Your task to perform on an android device: Set the phone to "Do not disturb". Image 0: 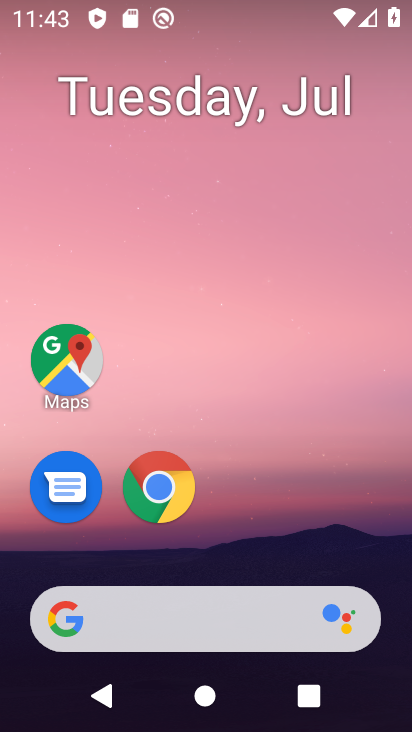
Step 0: drag from (378, 574) to (291, 204)
Your task to perform on an android device: Set the phone to "Do not disturb". Image 1: 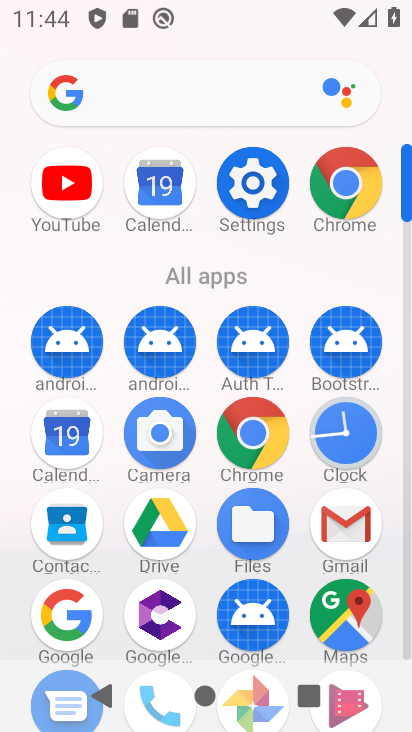
Step 1: click (258, 184)
Your task to perform on an android device: Set the phone to "Do not disturb". Image 2: 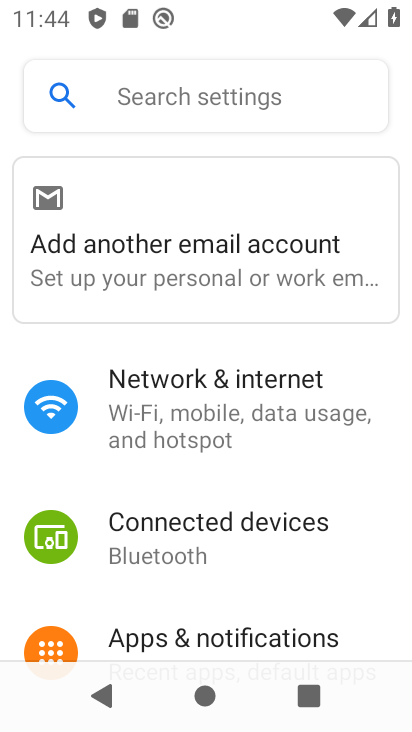
Step 2: drag from (279, 556) to (222, 203)
Your task to perform on an android device: Set the phone to "Do not disturb". Image 3: 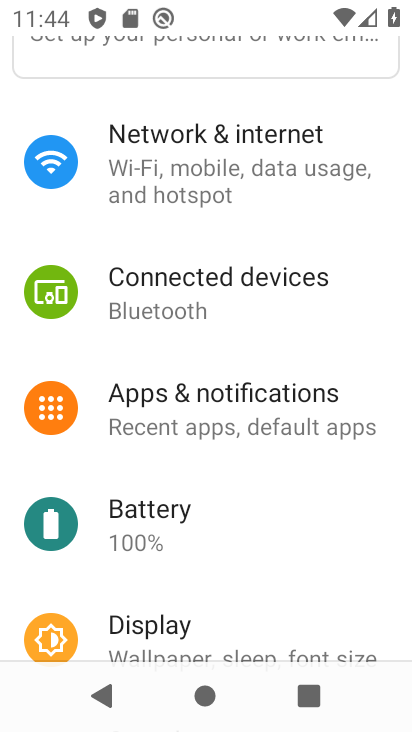
Step 3: drag from (246, 584) to (208, 233)
Your task to perform on an android device: Set the phone to "Do not disturb". Image 4: 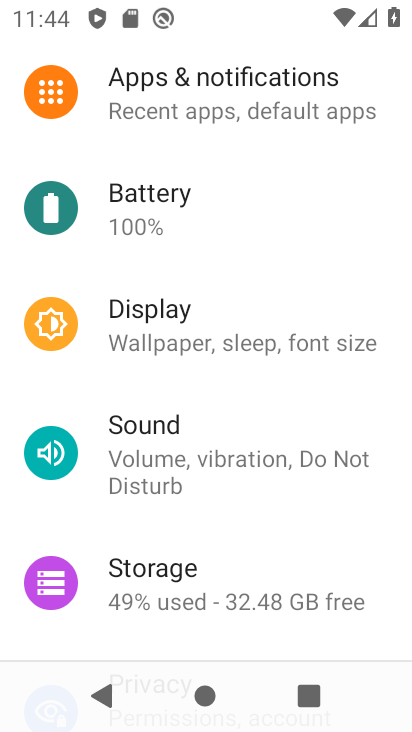
Step 4: click (256, 471)
Your task to perform on an android device: Set the phone to "Do not disturb". Image 5: 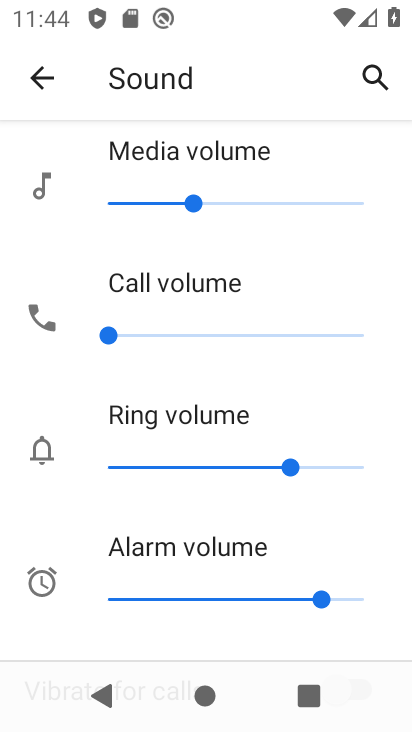
Step 5: drag from (249, 618) to (227, 320)
Your task to perform on an android device: Set the phone to "Do not disturb". Image 6: 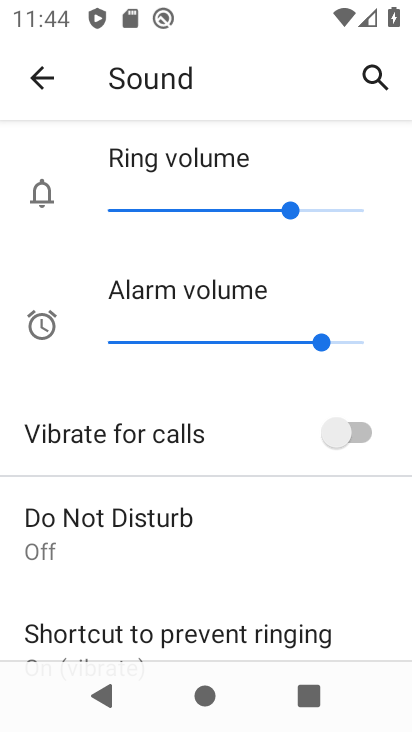
Step 6: click (227, 546)
Your task to perform on an android device: Set the phone to "Do not disturb". Image 7: 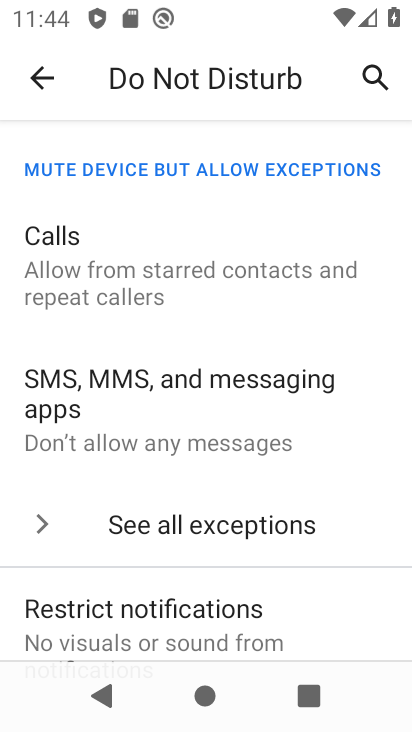
Step 7: drag from (279, 581) to (241, 305)
Your task to perform on an android device: Set the phone to "Do not disturb". Image 8: 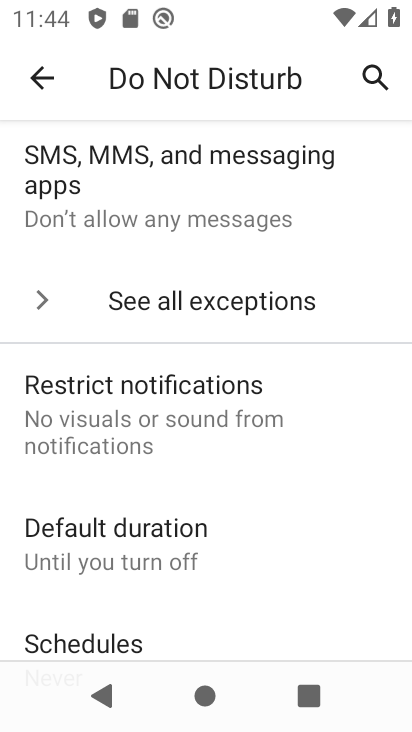
Step 8: drag from (279, 482) to (254, 216)
Your task to perform on an android device: Set the phone to "Do not disturb". Image 9: 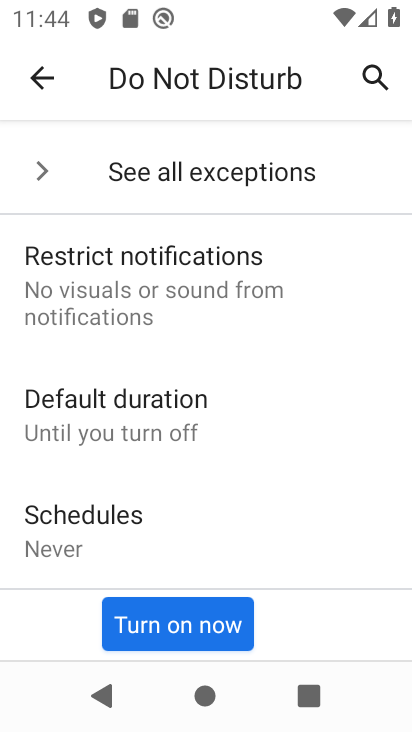
Step 9: click (214, 633)
Your task to perform on an android device: Set the phone to "Do not disturb". Image 10: 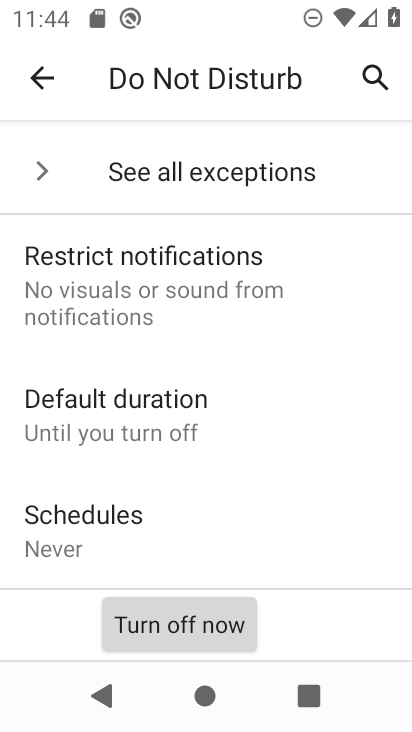
Step 10: task complete